Your task to perform on an android device: turn on translation in the chrome app Image 0: 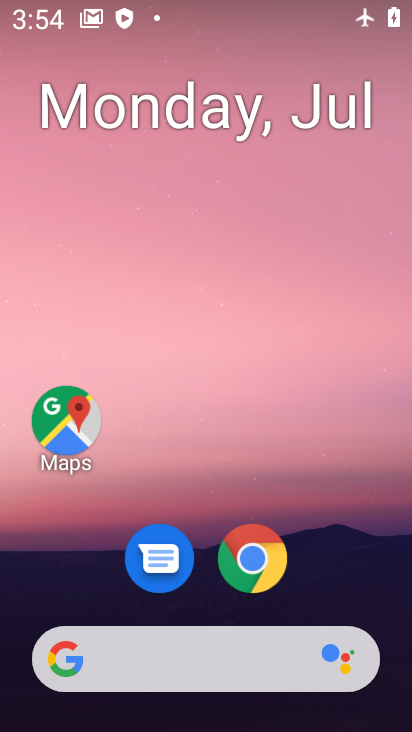
Step 0: click (273, 549)
Your task to perform on an android device: turn on translation in the chrome app Image 1: 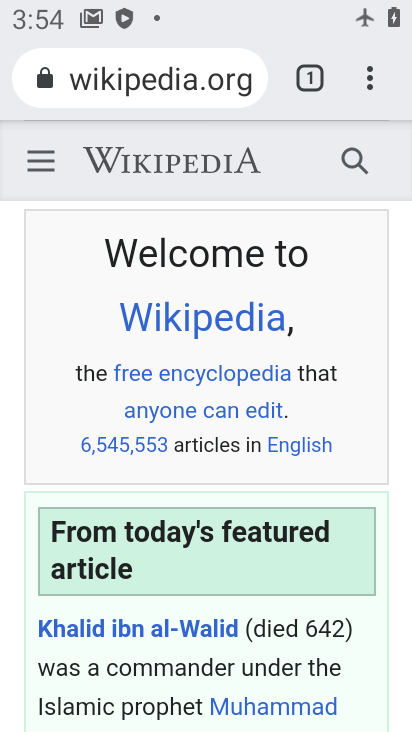
Step 1: drag from (368, 67) to (126, 609)
Your task to perform on an android device: turn on translation in the chrome app Image 2: 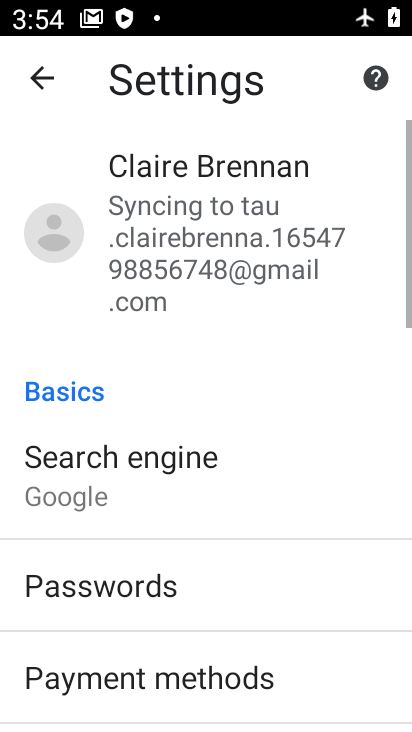
Step 2: drag from (227, 448) to (278, 90)
Your task to perform on an android device: turn on translation in the chrome app Image 3: 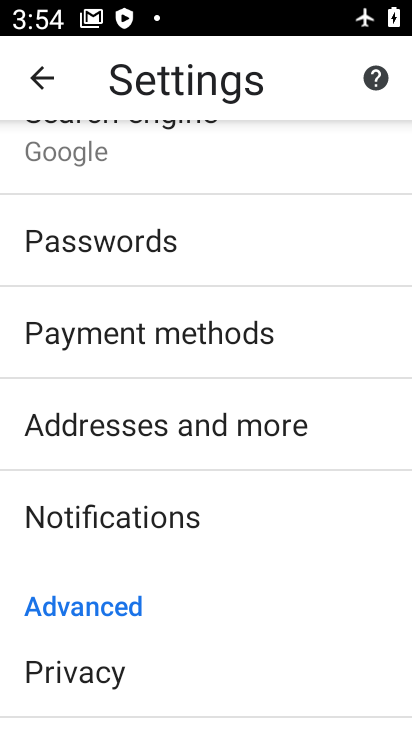
Step 3: drag from (139, 680) to (214, 186)
Your task to perform on an android device: turn on translation in the chrome app Image 4: 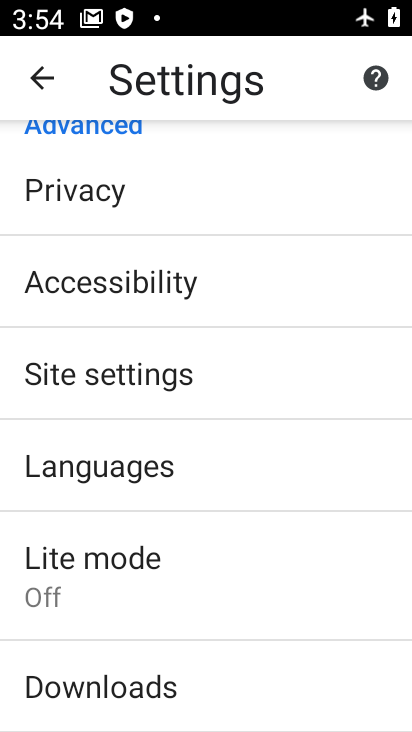
Step 4: click (127, 477)
Your task to perform on an android device: turn on translation in the chrome app Image 5: 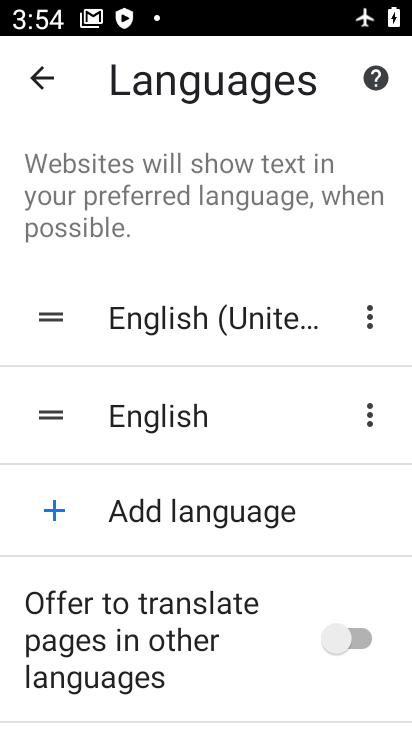
Step 5: click (342, 636)
Your task to perform on an android device: turn on translation in the chrome app Image 6: 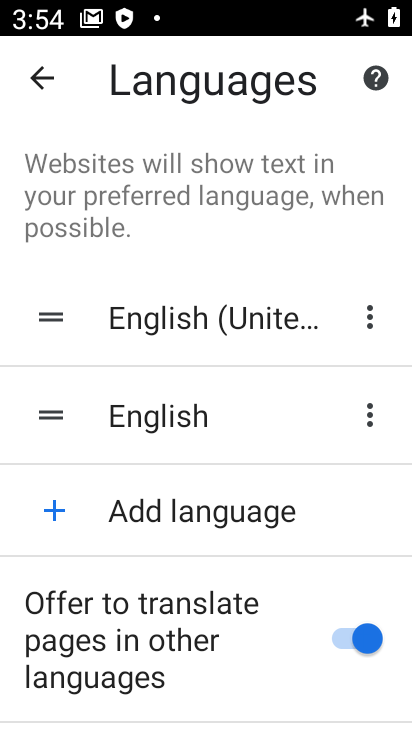
Step 6: task complete